Your task to perform on an android device: toggle data saver in the chrome app Image 0: 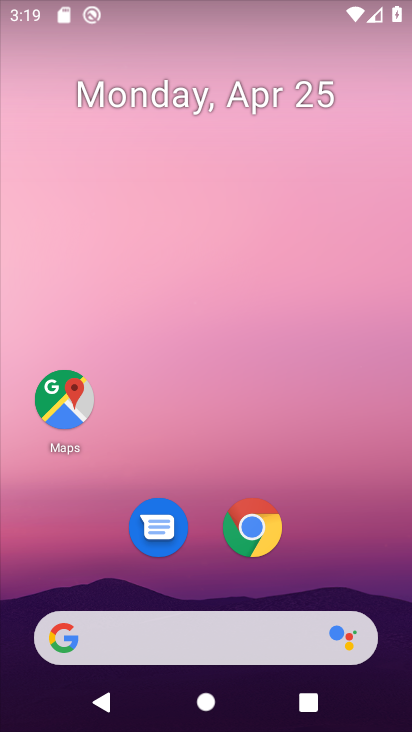
Step 0: click (250, 519)
Your task to perform on an android device: toggle data saver in the chrome app Image 1: 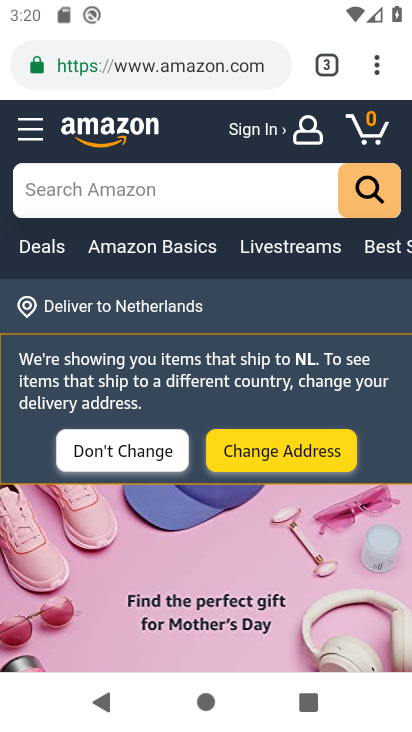
Step 1: click (376, 68)
Your task to perform on an android device: toggle data saver in the chrome app Image 2: 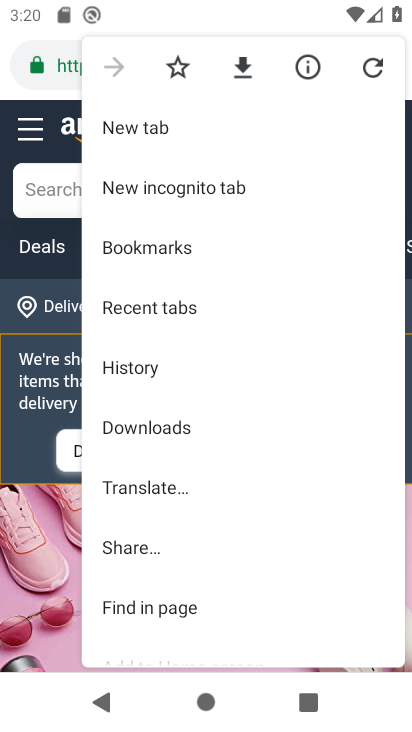
Step 2: drag from (230, 561) to (253, 184)
Your task to perform on an android device: toggle data saver in the chrome app Image 3: 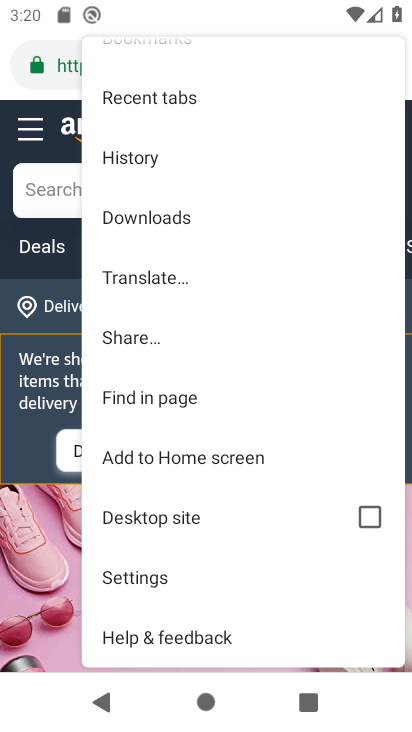
Step 3: click (150, 580)
Your task to perform on an android device: toggle data saver in the chrome app Image 4: 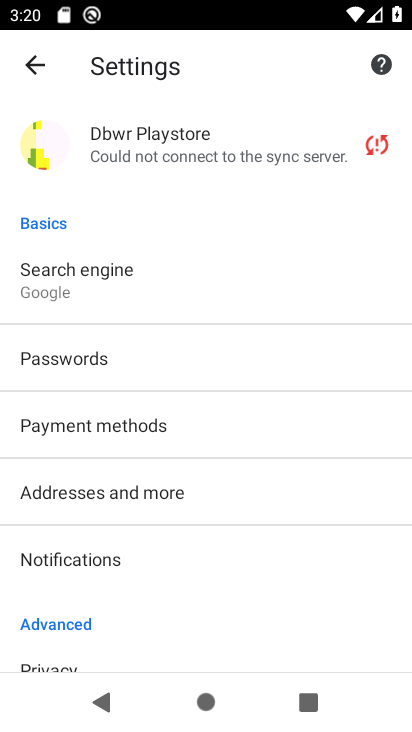
Step 4: drag from (215, 600) to (218, 300)
Your task to perform on an android device: toggle data saver in the chrome app Image 5: 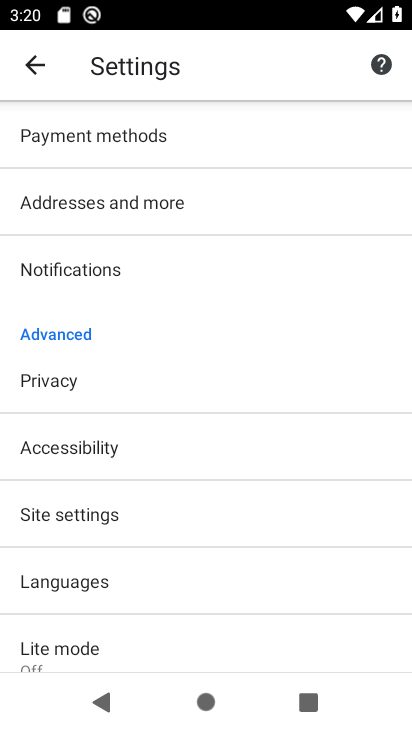
Step 5: click (58, 641)
Your task to perform on an android device: toggle data saver in the chrome app Image 6: 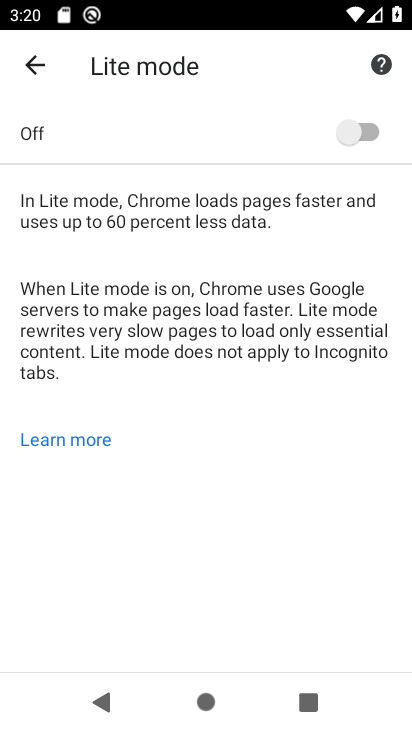
Step 6: click (368, 132)
Your task to perform on an android device: toggle data saver in the chrome app Image 7: 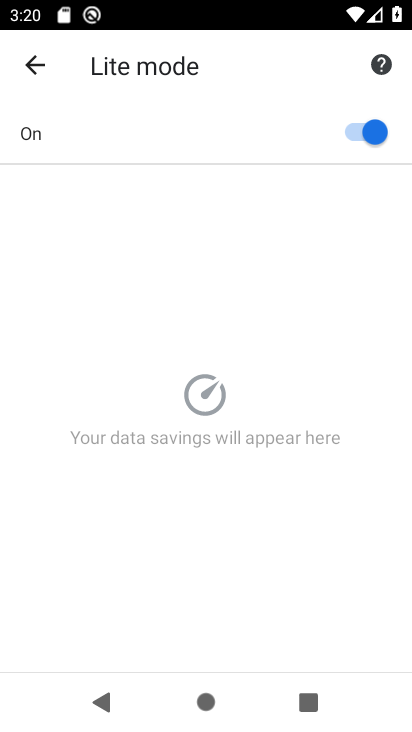
Step 7: task complete